Your task to perform on an android device: Open location settings Image 0: 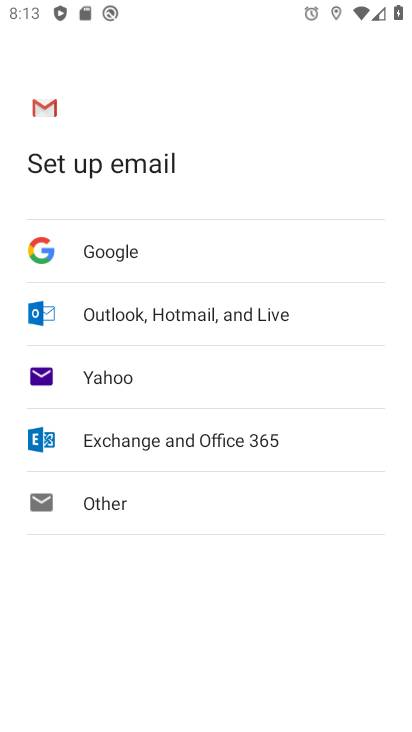
Step 0: press home button
Your task to perform on an android device: Open location settings Image 1: 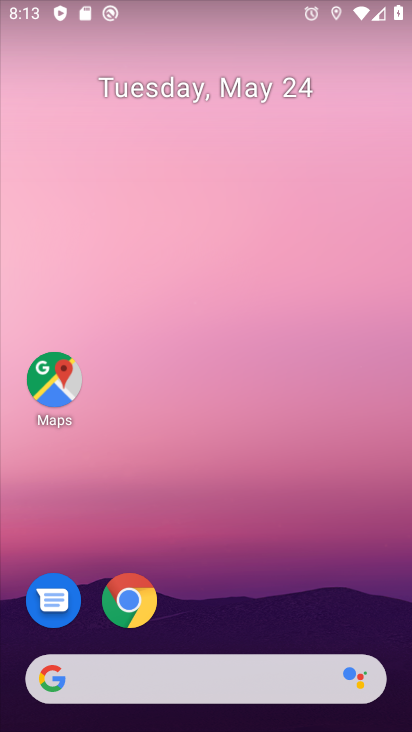
Step 1: drag from (200, 729) to (204, 163)
Your task to perform on an android device: Open location settings Image 2: 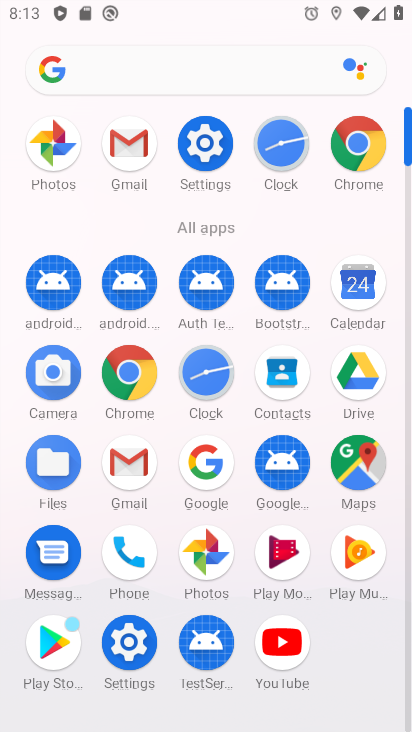
Step 2: click (201, 145)
Your task to perform on an android device: Open location settings Image 3: 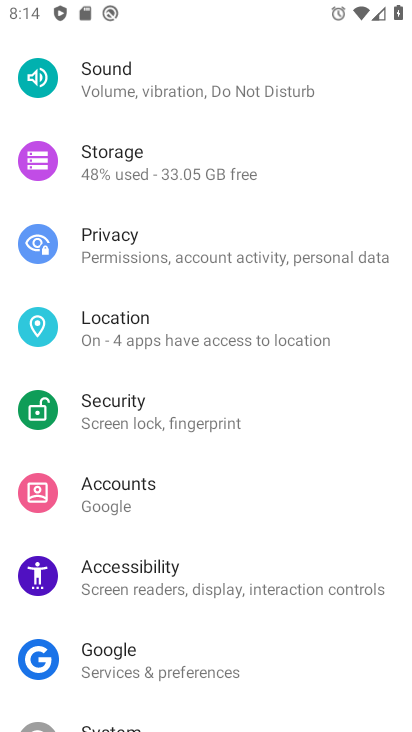
Step 3: click (114, 334)
Your task to perform on an android device: Open location settings Image 4: 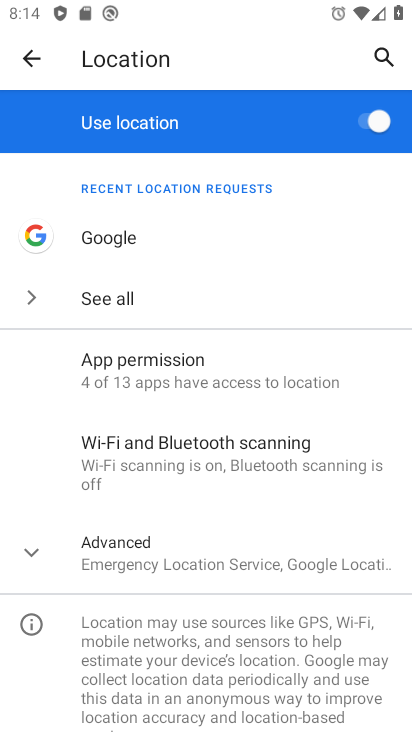
Step 4: task complete